Your task to perform on an android device: turn off location history Image 0: 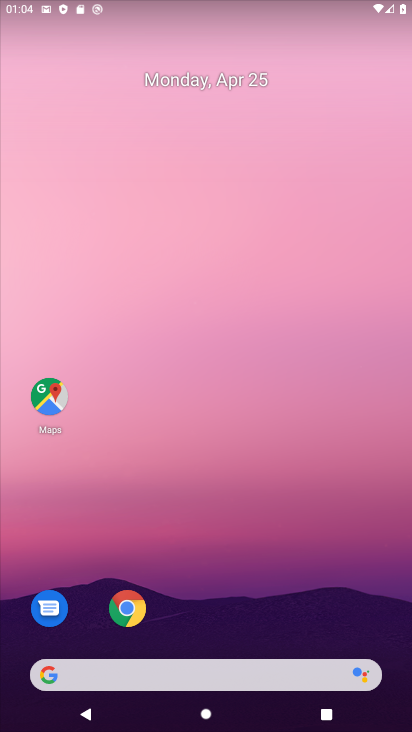
Step 0: drag from (224, 595) to (246, 263)
Your task to perform on an android device: turn off location history Image 1: 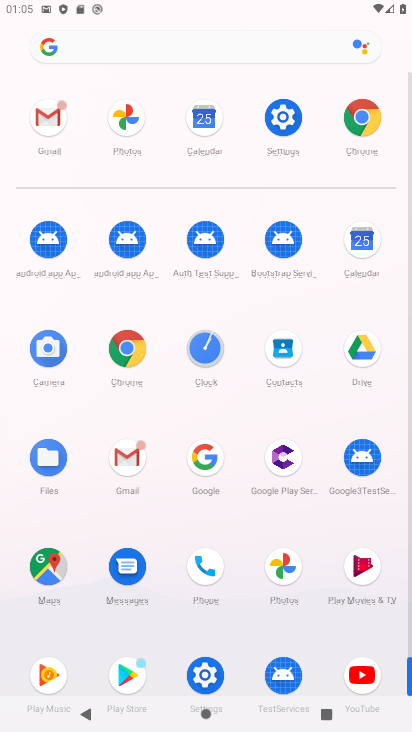
Step 1: click (48, 582)
Your task to perform on an android device: turn off location history Image 2: 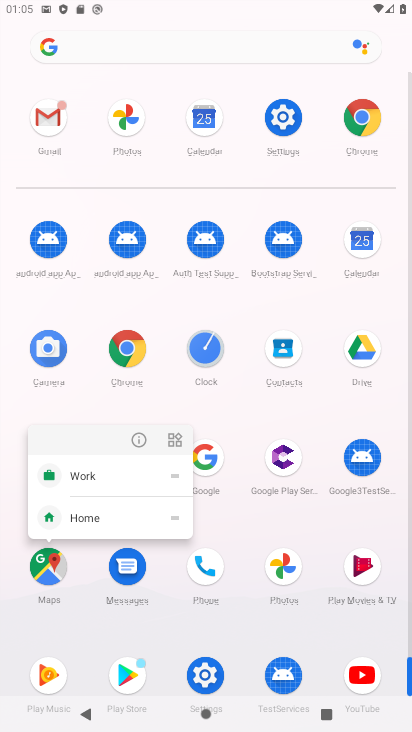
Step 2: click (44, 570)
Your task to perform on an android device: turn off location history Image 3: 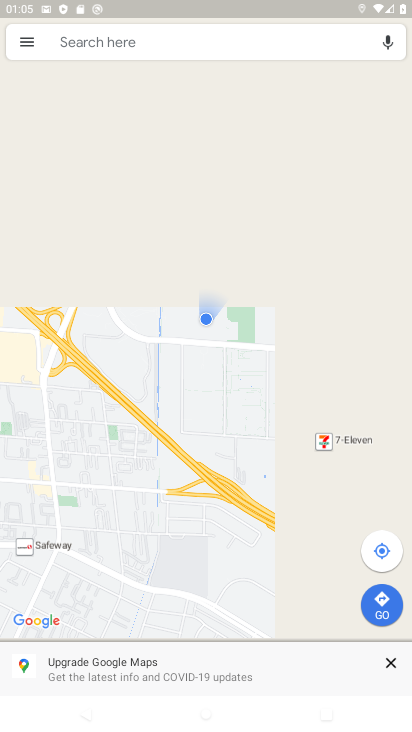
Step 3: click (20, 46)
Your task to perform on an android device: turn off location history Image 4: 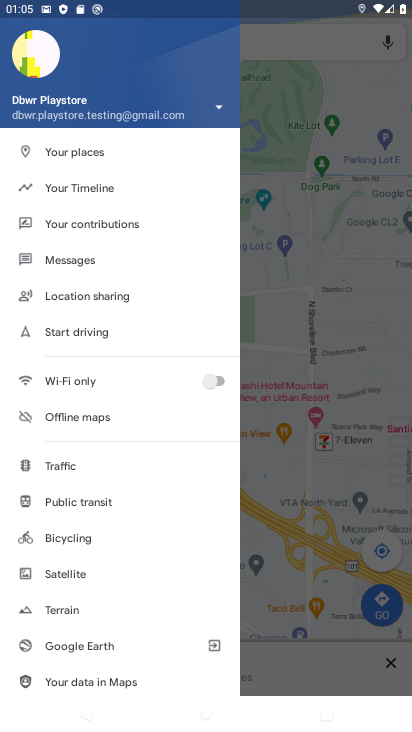
Step 4: click (48, 197)
Your task to perform on an android device: turn off location history Image 5: 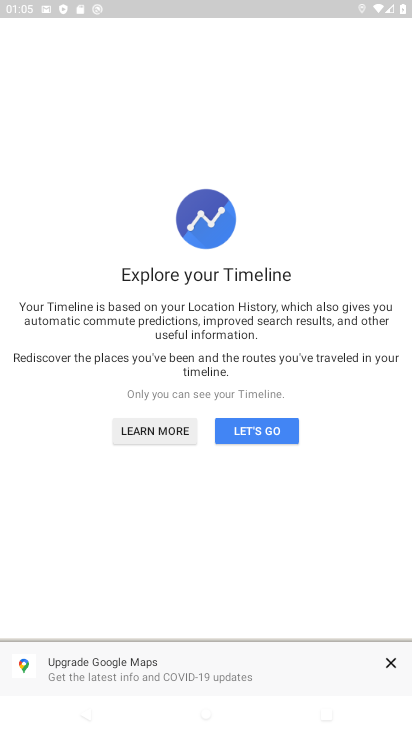
Step 5: click (247, 435)
Your task to perform on an android device: turn off location history Image 6: 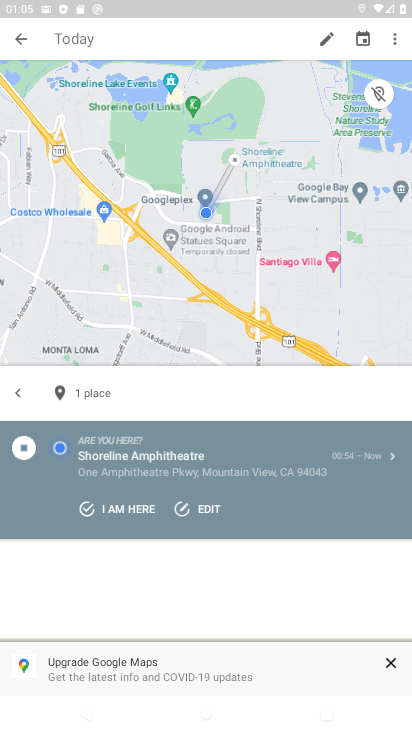
Step 6: click (392, 45)
Your task to perform on an android device: turn off location history Image 7: 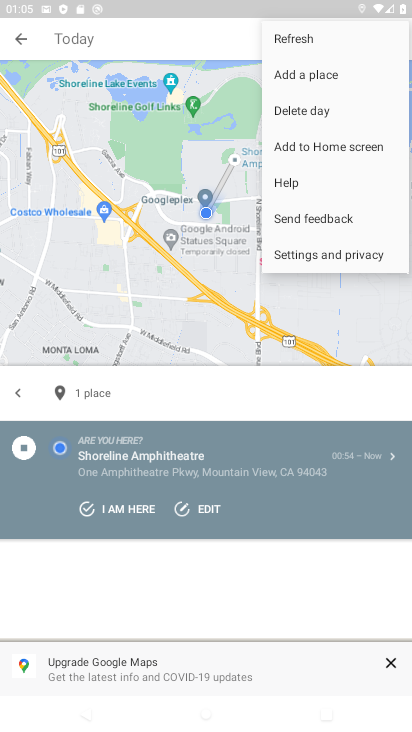
Step 7: click (357, 256)
Your task to perform on an android device: turn off location history Image 8: 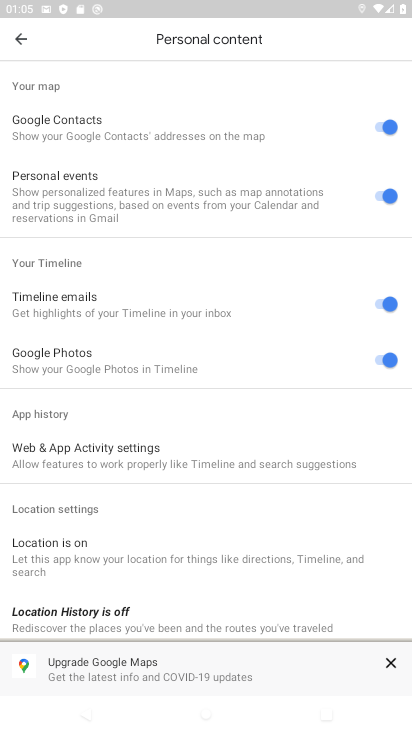
Step 8: click (168, 620)
Your task to perform on an android device: turn off location history Image 9: 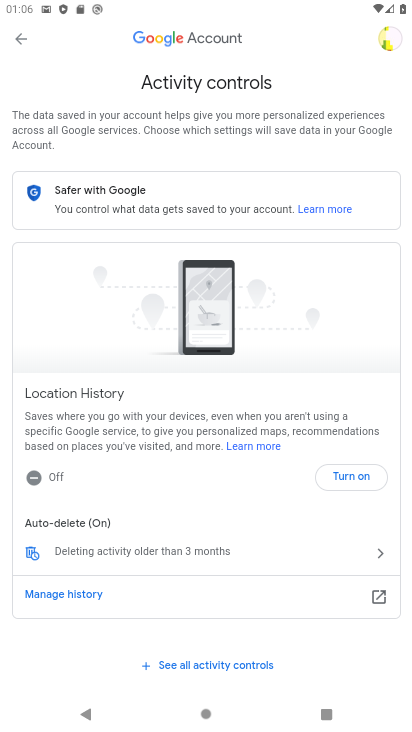
Step 9: task complete